Your task to perform on an android device: add a label to a message in the gmail app Image 0: 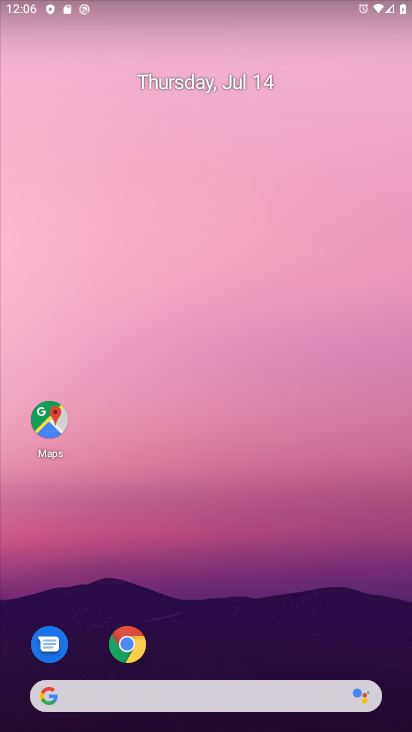
Step 0: drag from (192, 645) to (138, 286)
Your task to perform on an android device: add a label to a message in the gmail app Image 1: 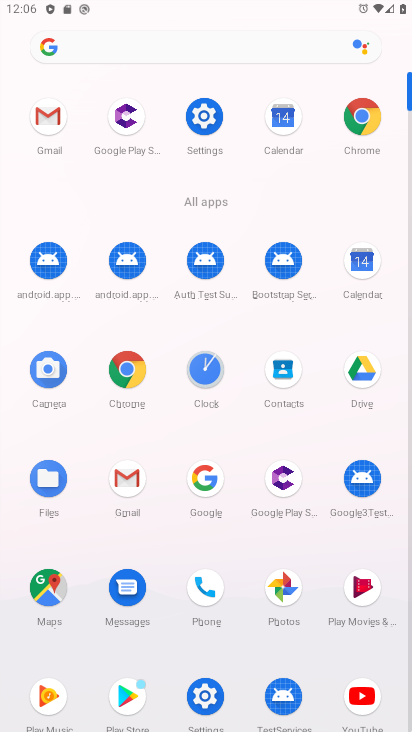
Step 1: click (135, 479)
Your task to perform on an android device: add a label to a message in the gmail app Image 2: 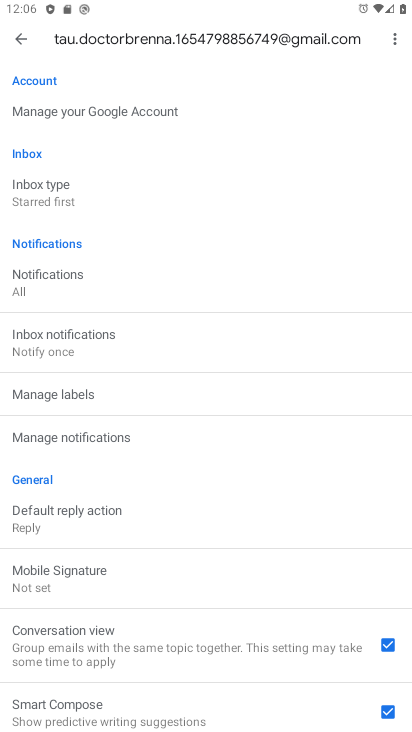
Step 2: click (21, 30)
Your task to perform on an android device: add a label to a message in the gmail app Image 3: 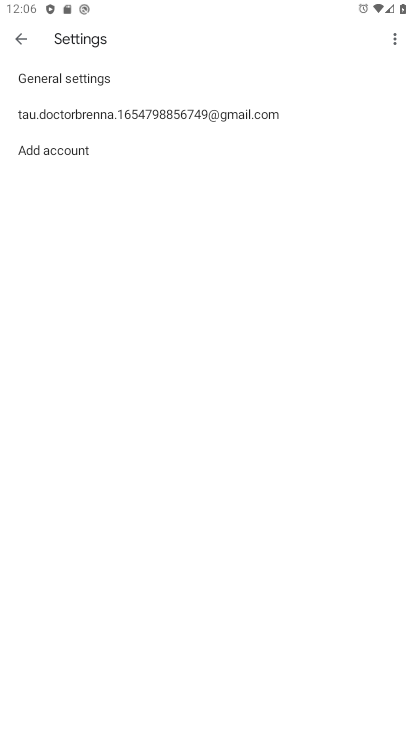
Step 3: click (23, 48)
Your task to perform on an android device: add a label to a message in the gmail app Image 4: 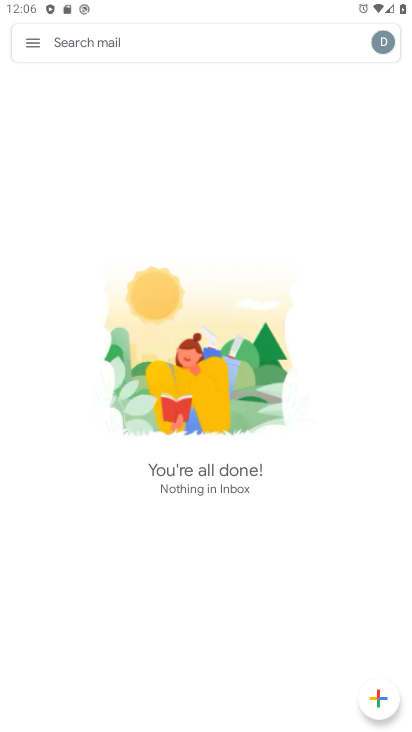
Step 4: task complete